Your task to perform on an android device: show emergency info Image 0: 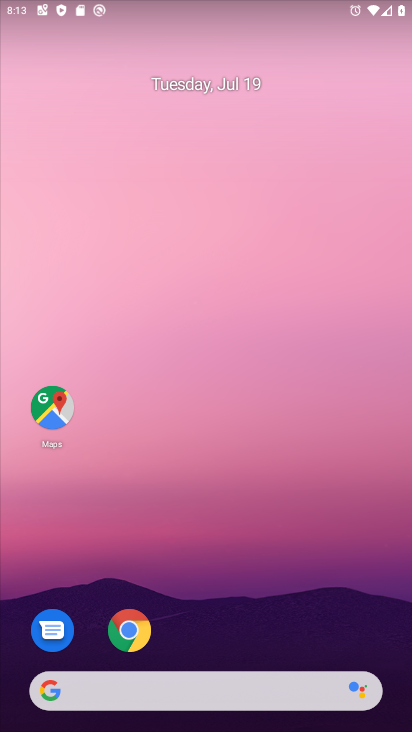
Step 0: drag from (193, 642) to (190, 187)
Your task to perform on an android device: show emergency info Image 1: 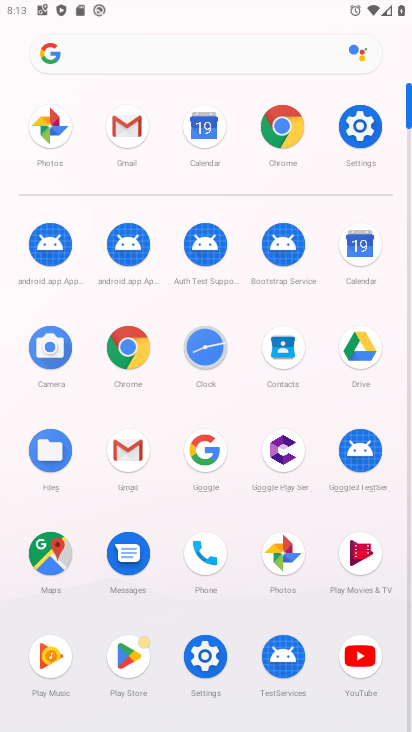
Step 1: click (360, 129)
Your task to perform on an android device: show emergency info Image 2: 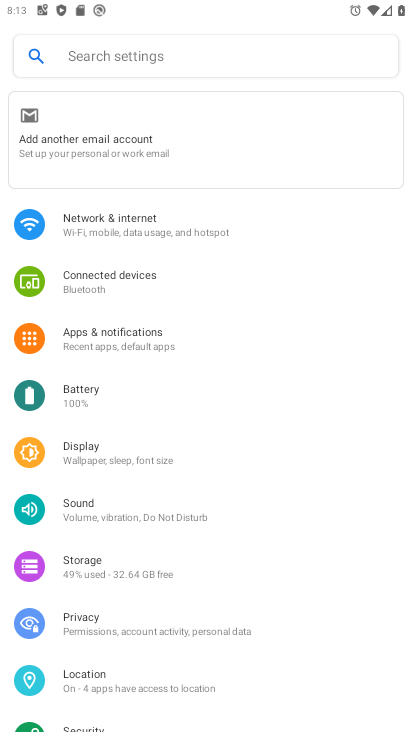
Step 2: drag from (110, 630) to (151, 260)
Your task to perform on an android device: show emergency info Image 3: 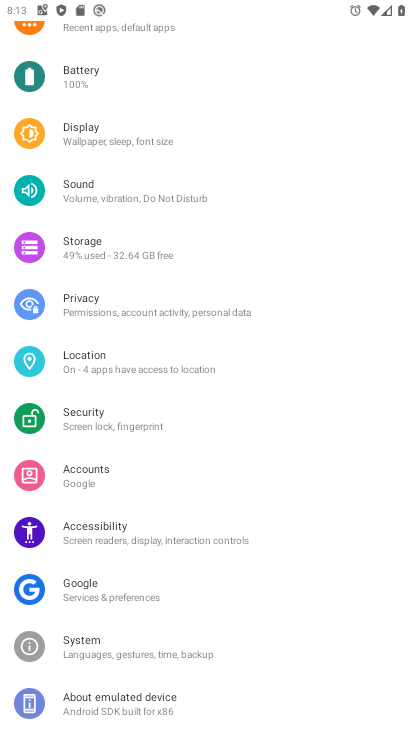
Step 3: click (80, 704)
Your task to perform on an android device: show emergency info Image 4: 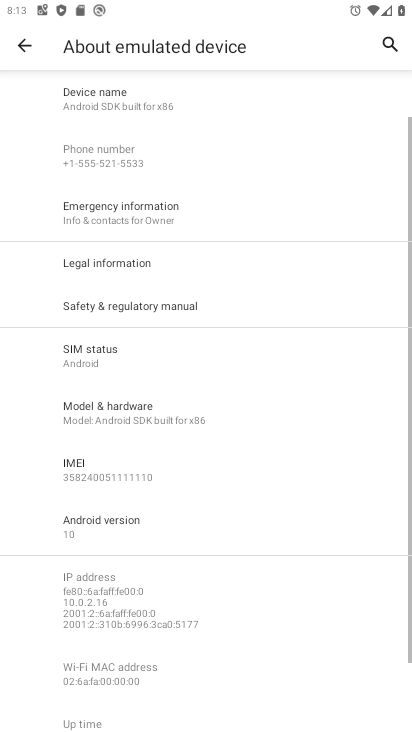
Step 4: click (124, 211)
Your task to perform on an android device: show emergency info Image 5: 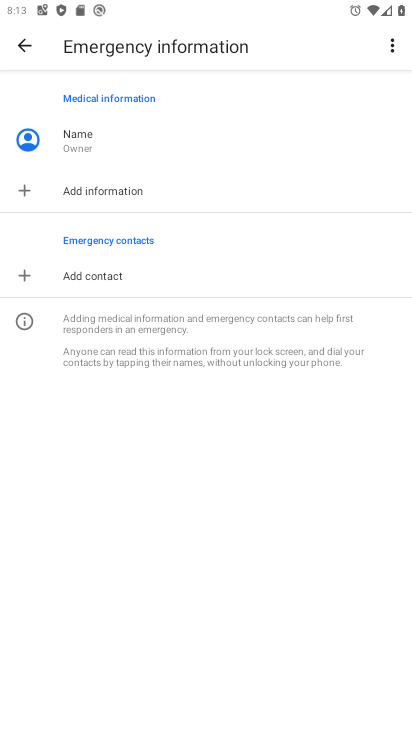
Step 5: task complete